Your task to perform on an android device: Open privacy settings Image 0: 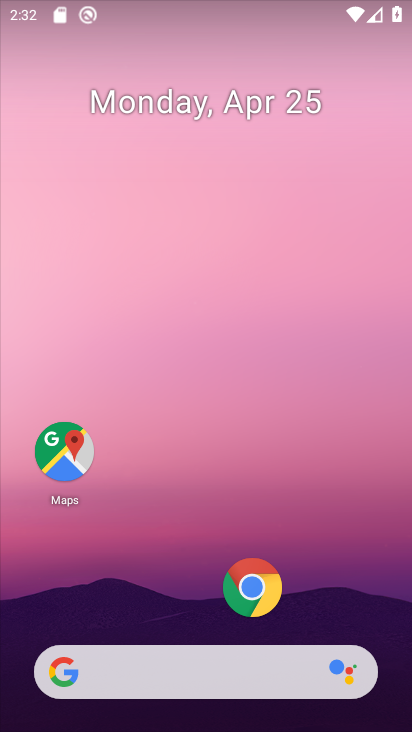
Step 0: drag from (201, 615) to (206, 58)
Your task to perform on an android device: Open privacy settings Image 1: 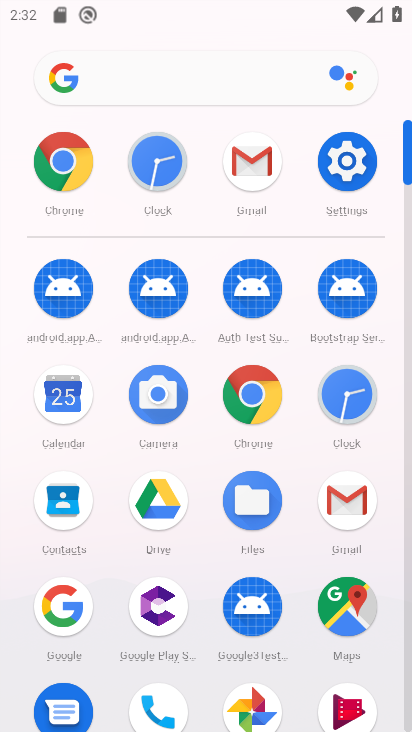
Step 1: click (345, 154)
Your task to perform on an android device: Open privacy settings Image 2: 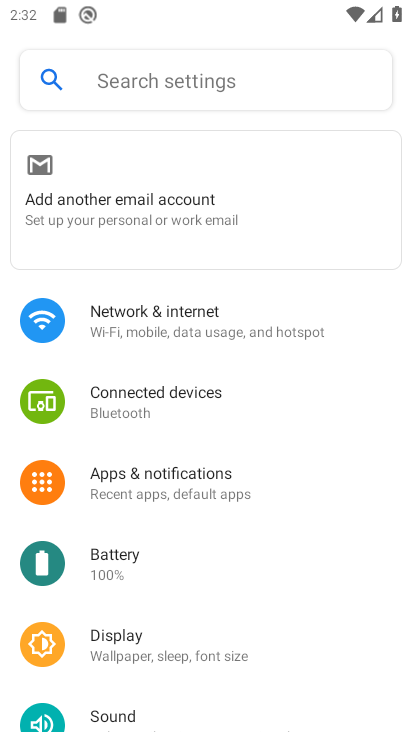
Step 2: drag from (175, 639) to (172, 108)
Your task to perform on an android device: Open privacy settings Image 3: 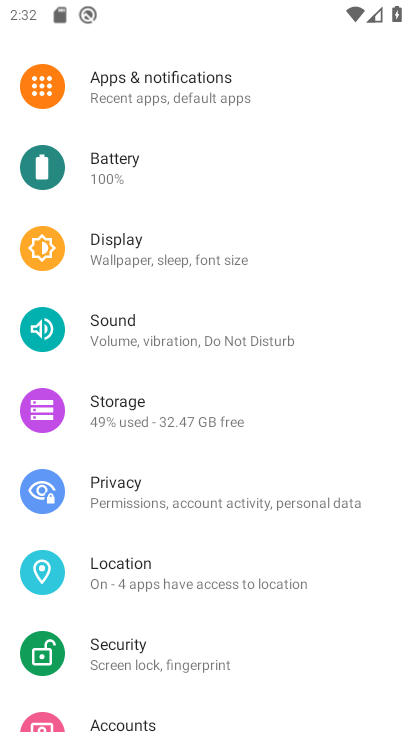
Step 3: click (78, 483)
Your task to perform on an android device: Open privacy settings Image 4: 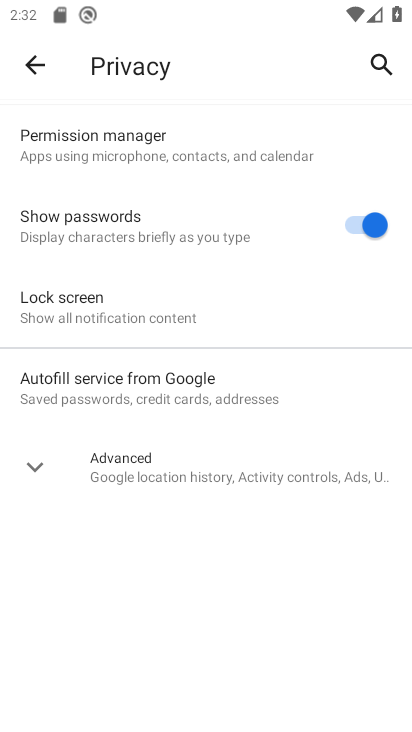
Step 4: click (35, 466)
Your task to perform on an android device: Open privacy settings Image 5: 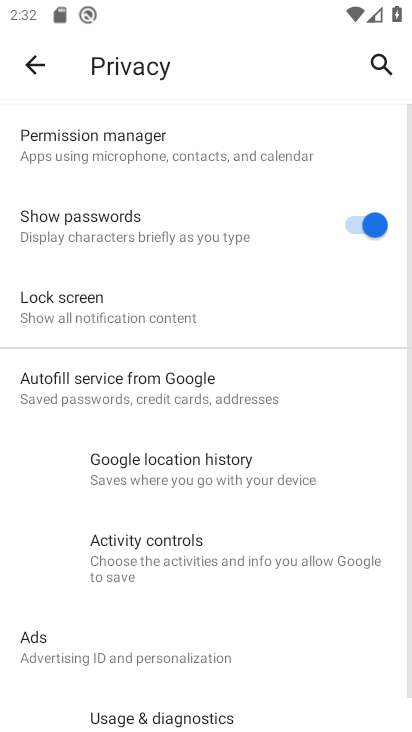
Step 5: task complete